Your task to perform on an android device: Search for vegetarian restaurants on Maps Image 0: 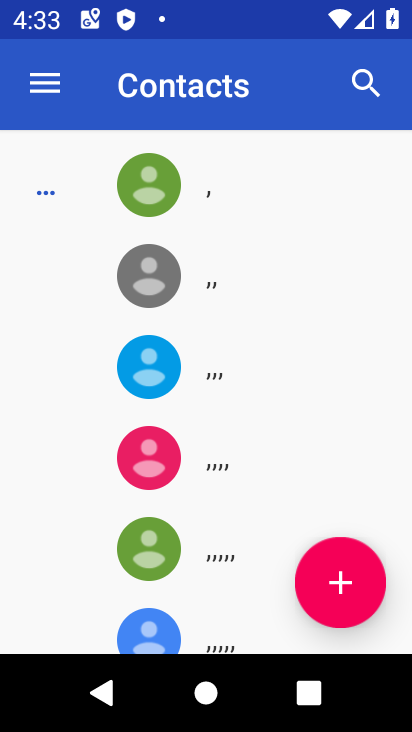
Step 0: press home button
Your task to perform on an android device: Search for vegetarian restaurants on Maps Image 1: 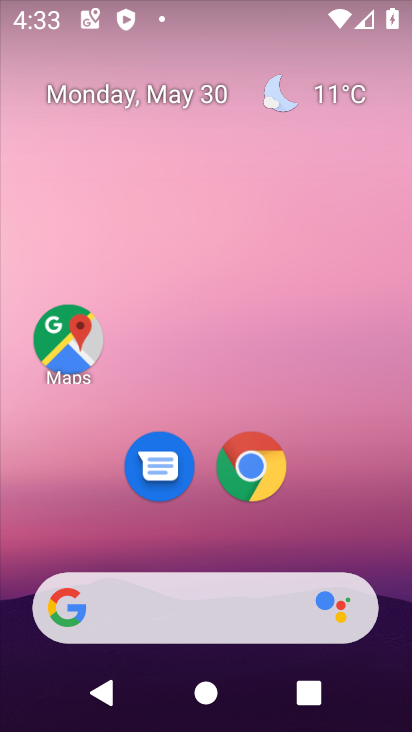
Step 1: click (54, 334)
Your task to perform on an android device: Search for vegetarian restaurants on Maps Image 2: 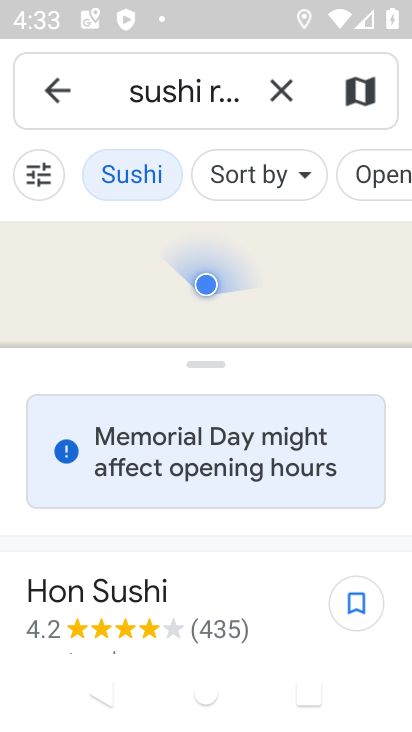
Step 2: click (145, 84)
Your task to perform on an android device: Search for vegetarian restaurants on Maps Image 3: 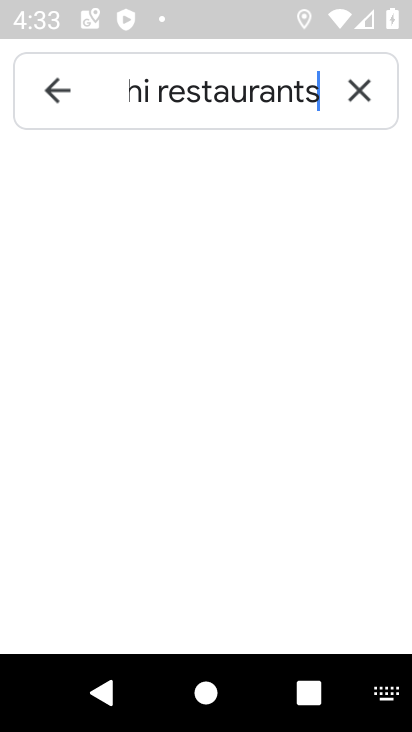
Step 3: click (355, 86)
Your task to perform on an android device: Search for vegetarian restaurants on Maps Image 4: 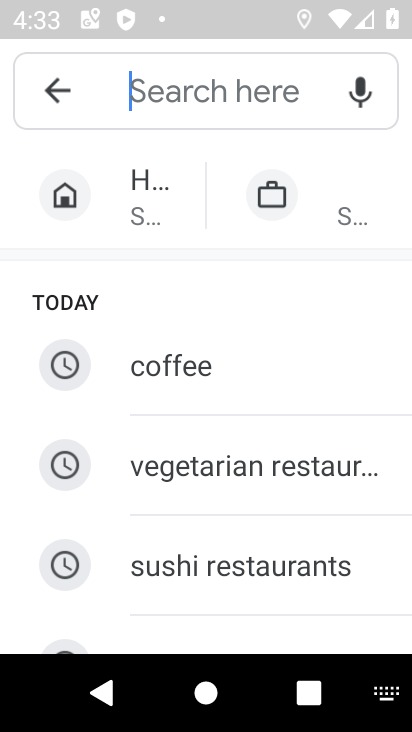
Step 4: type "vegetarian restaurants"
Your task to perform on an android device: Search for vegetarian restaurants on Maps Image 5: 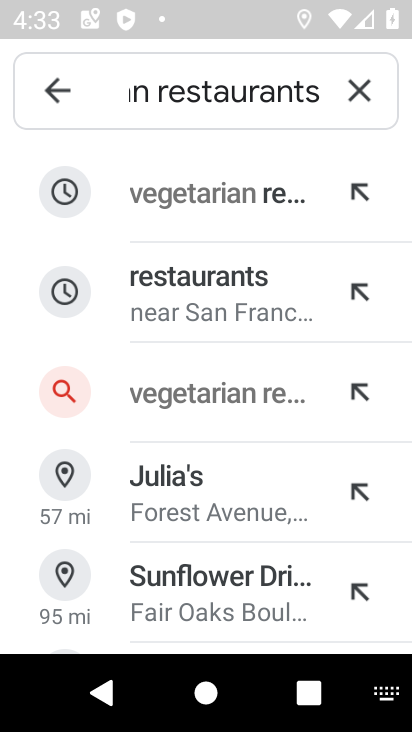
Step 5: press enter
Your task to perform on an android device: Search for vegetarian restaurants on Maps Image 6: 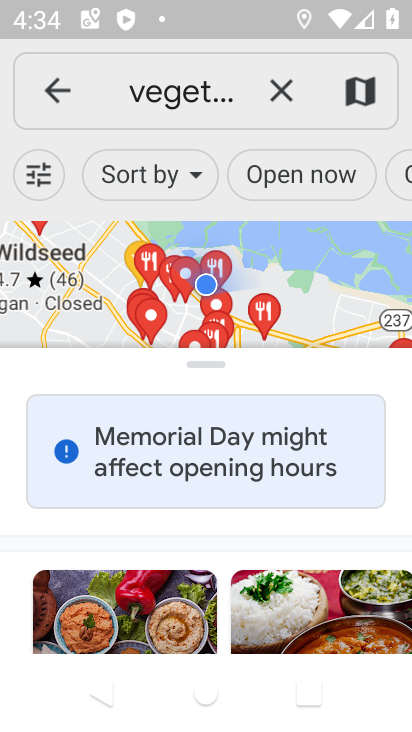
Step 6: task complete